Your task to perform on an android device: open chrome privacy settings Image 0: 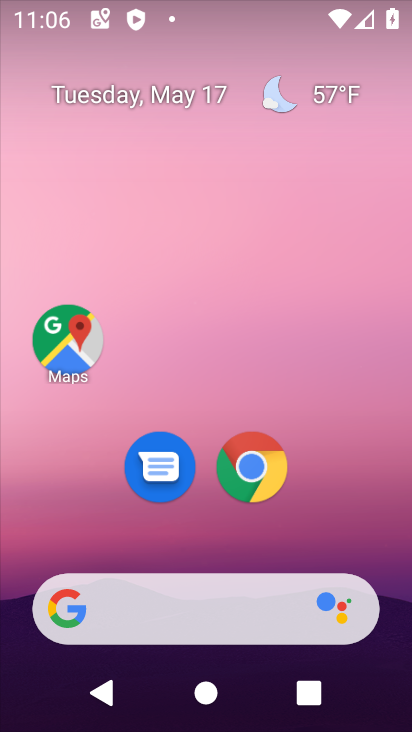
Step 0: drag from (233, 637) to (310, 305)
Your task to perform on an android device: open chrome privacy settings Image 1: 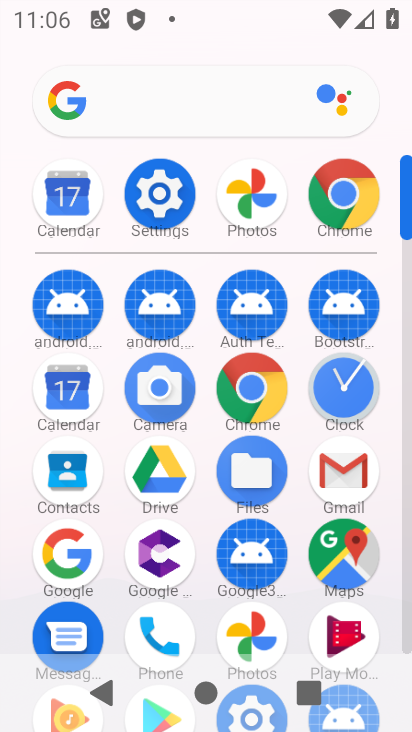
Step 1: click (340, 184)
Your task to perform on an android device: open chrome privacy settings Image 2: 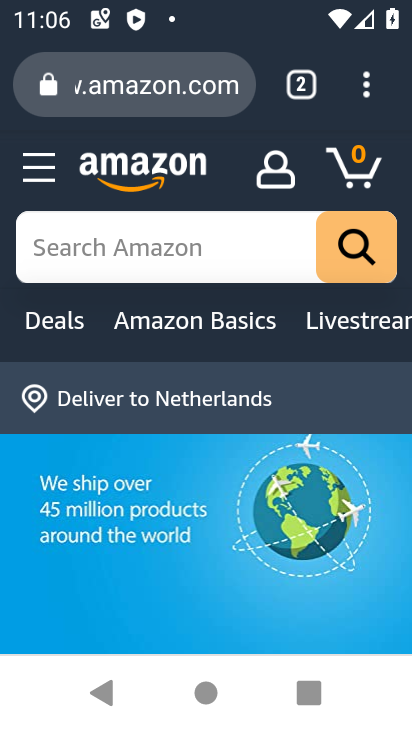
Step 2: click (363, 97)
Your task to perform on an android device: open chrome privacy settings Image 3: 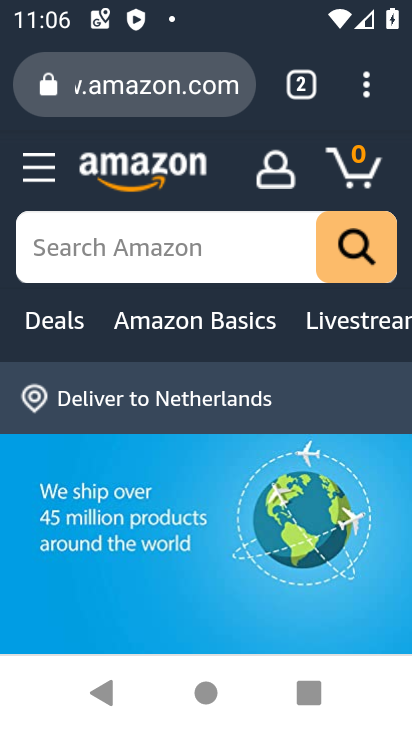
Step 3: click (351, 115)
Your task to perform on an android device: open chrome privacy settings Image 4: 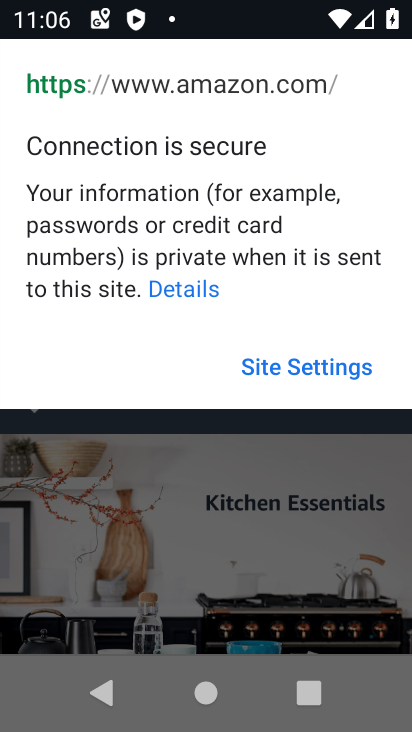
Step 4: click (189, 499)
Your task to perform on an android device: open chrome privacy settings Image 5: 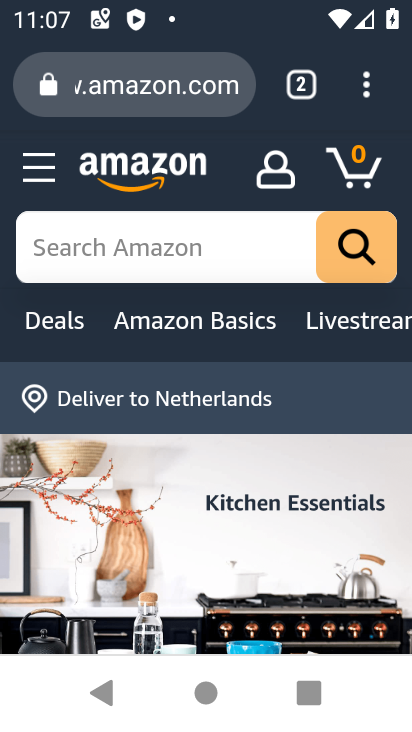
Step 5: click (353, 108)
Your task to perform on an android device: open chrome privacy settings Image 6: 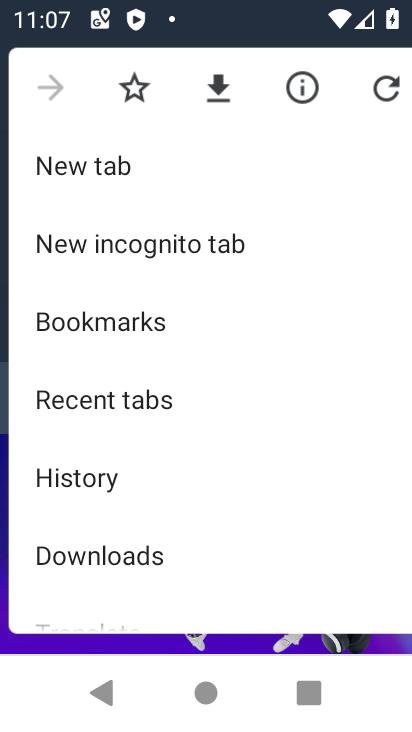
Step 6: drag from (215, 495) to (254, 216)
Your task to perform on an android device: open chrome privacy settings Image 7: 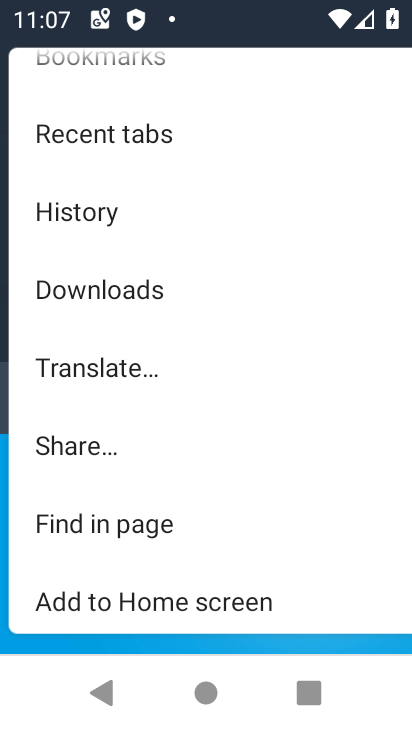
Step 7: drag from (181, 411) to (193, 233)
Your task to perform on an android device: open chrome privacy settings Image 8: 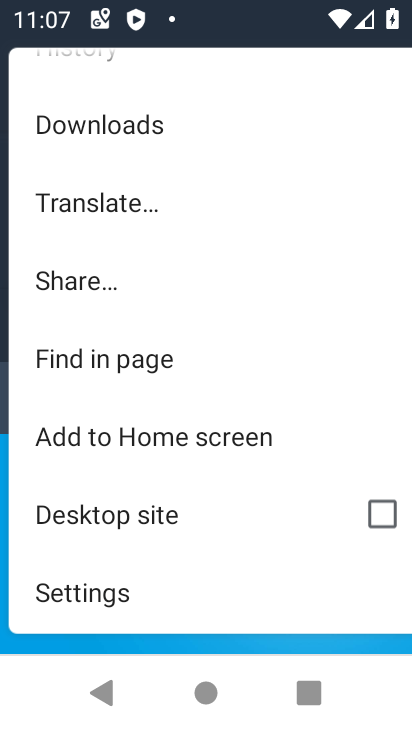
Step 8: click (85, 593)
Your task to perform on an android device: open chrome privacy settings Image 9: 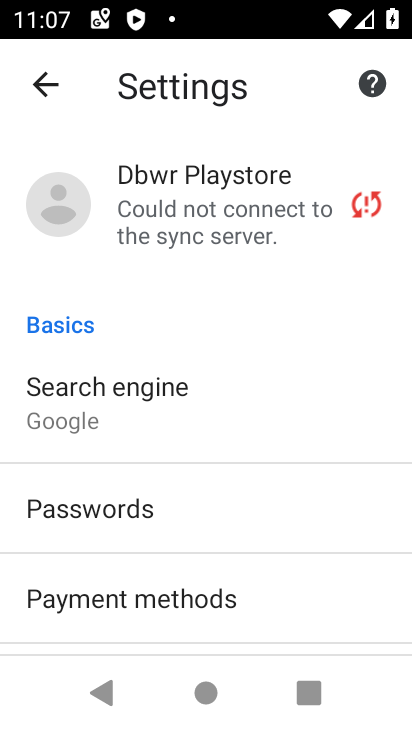
Step 9: drag from (108, 598) to (174, 333)
Your task to perform on an android device: open chrome privacy settings Image 10: 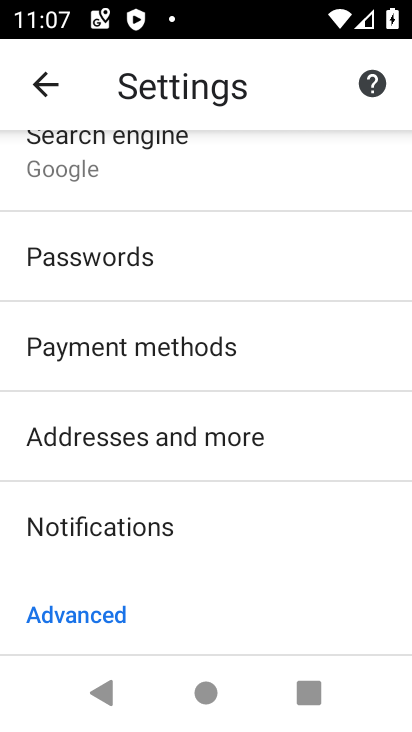
Step 10: drag from (201, 511) to (269, 225)
Your task to perform on an android device: open chrome privacy settings Image 11: 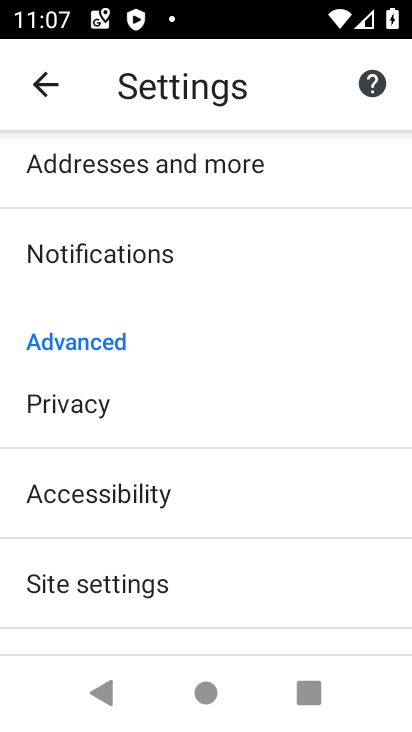
Step 11: click (94, 387)
Your task to perform on an android device: open chrome privacy settings Image 12: 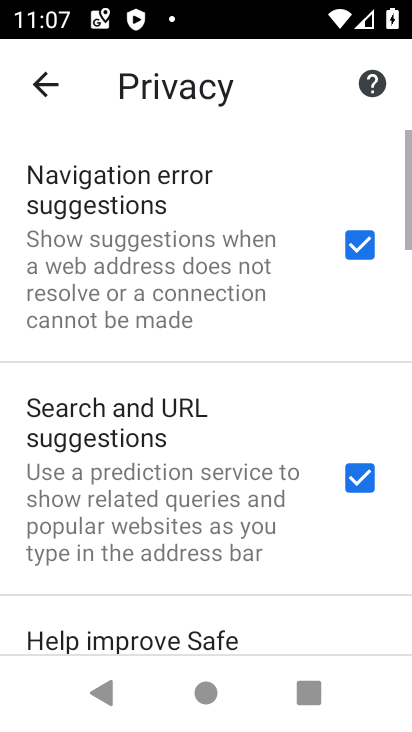
Step 12: task complete